Your task to perform on an android device: Open notification settings Image 0: 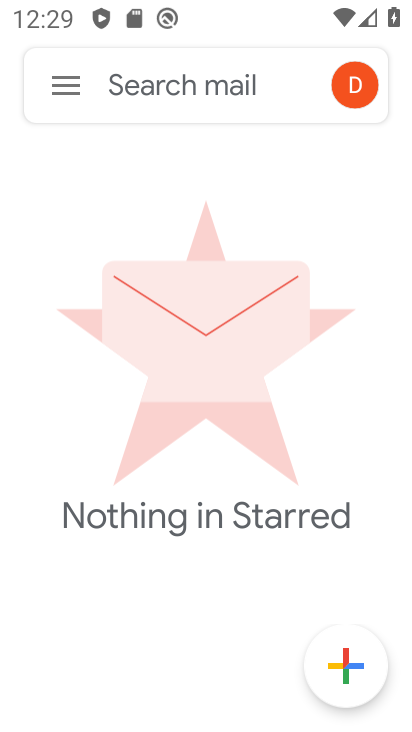
Step 0: press home button
Your task to perform on an android device: Open notification settings Image 1: 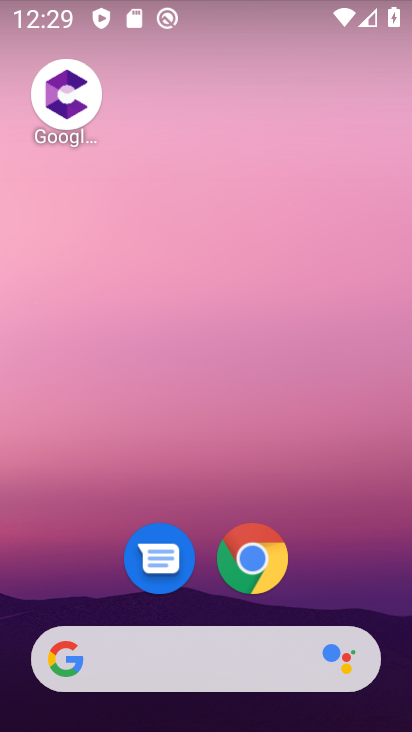
Step 1: drag from (372, 580) to (268, 127)
Your task to perform on an android device: Open notification settings Image 2: 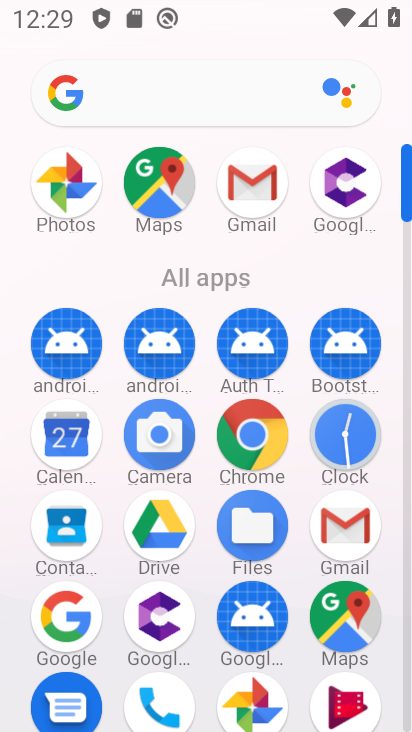
Step 2: click (406, 665)
Your task to perform on an android device: Open notification settings Image 3: 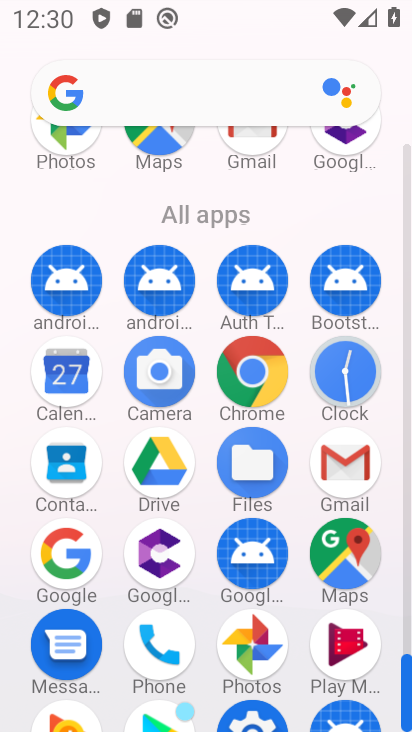
Step 3: click (257, 720)
Your task to perform on an android device: Open notification settings Image 4: 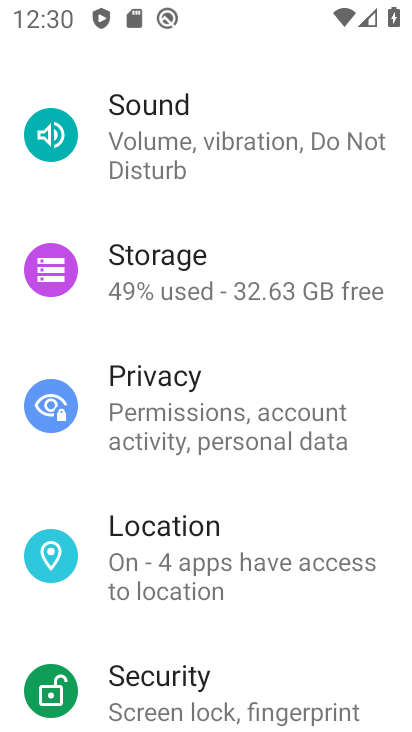
Step 4: drag from (278, 202) to (261, 636)
Your task to perform on an android device: Open notification settings Image 5: 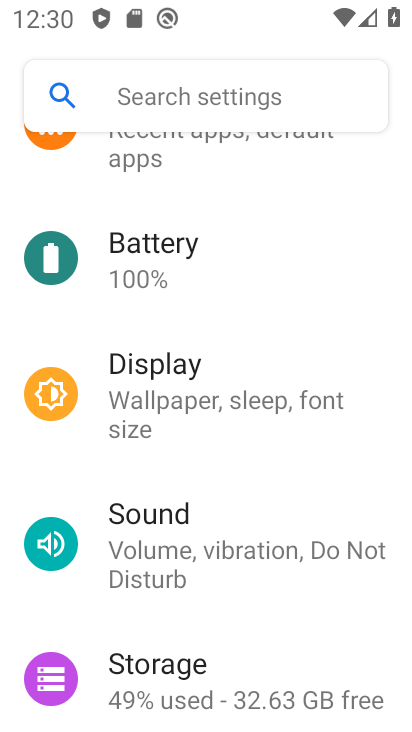
Step 5: drag from (235, 465) to (226, 714)
Your task to perform on an android device: Open notification settings Image 6: 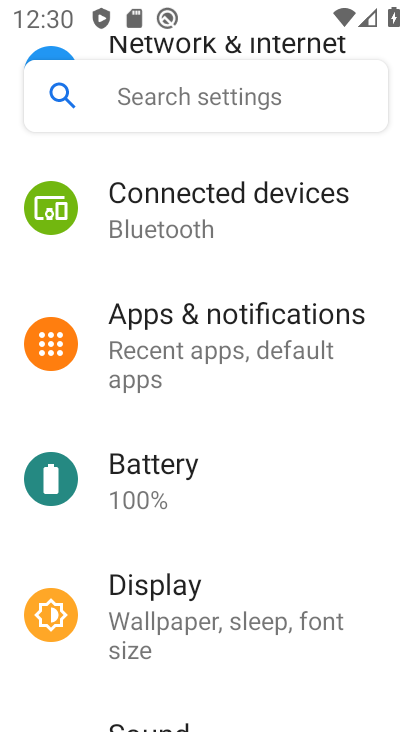
Step 6: click (206, 343)
Your task to perform on an android device: Open notification settings Image 7: 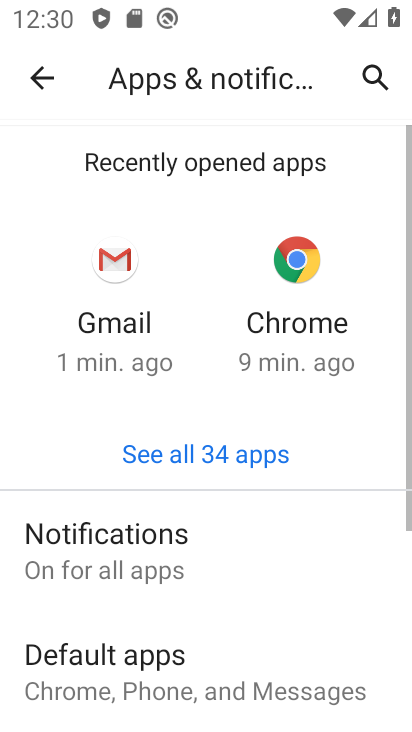
Step 7: click (173, 541)
Your task to perform on an android device: Open notification settings Image 8: 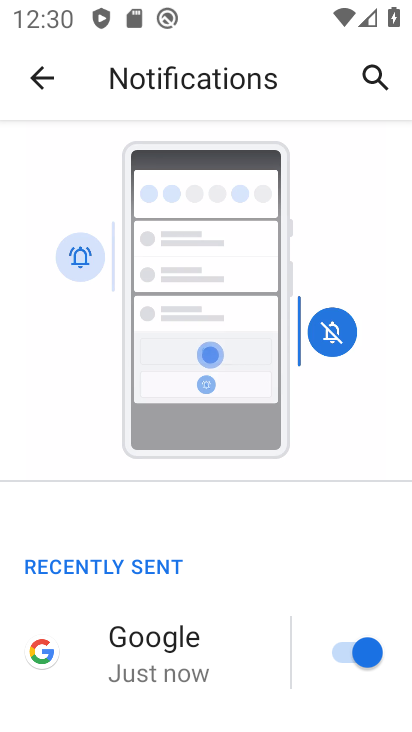
Step 8: task complete